Your task to perform on an android device: Open Amazon Image 0: 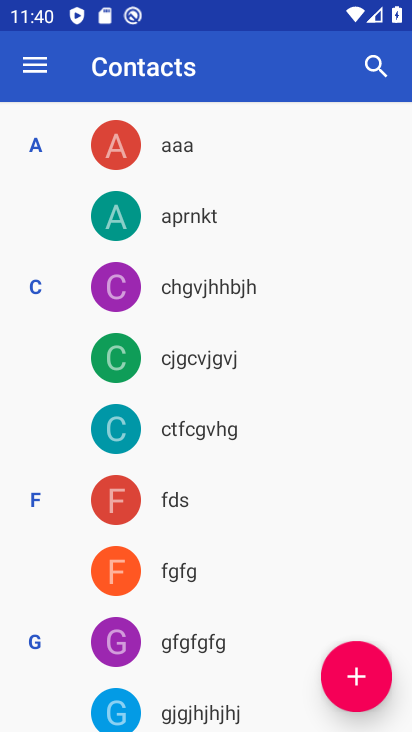
Step 0: press home button
Your task to perform on an android device: Open Amazon Image 1: 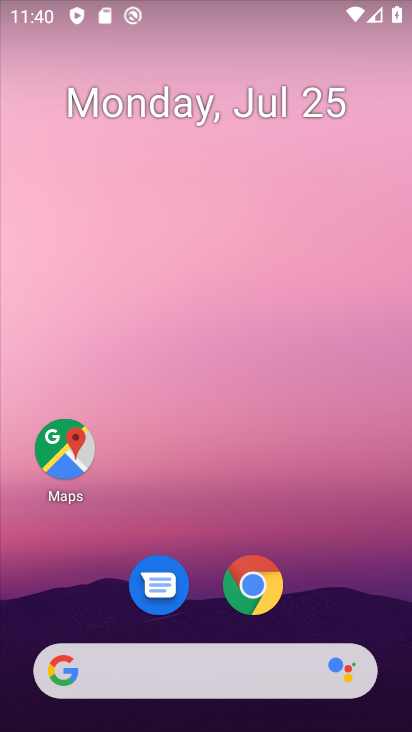
Step 1: click (268, 587)
Your task to perform on an android device: Open Amazon Image 2: 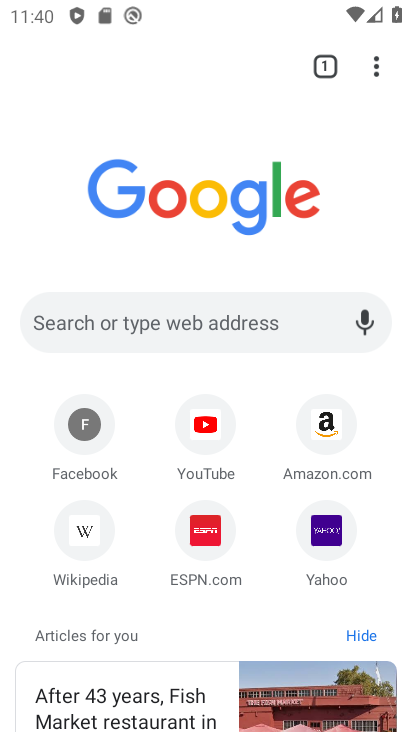
Step 2: click (328, 427)
Your task to perform on an android device: Open Amazon Image 3: 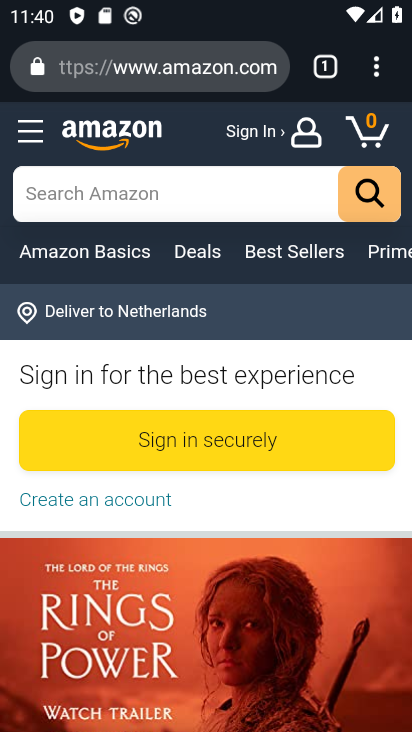
Step 3: task complete